Your task to perform on an android device: open wifi settings Image 0: 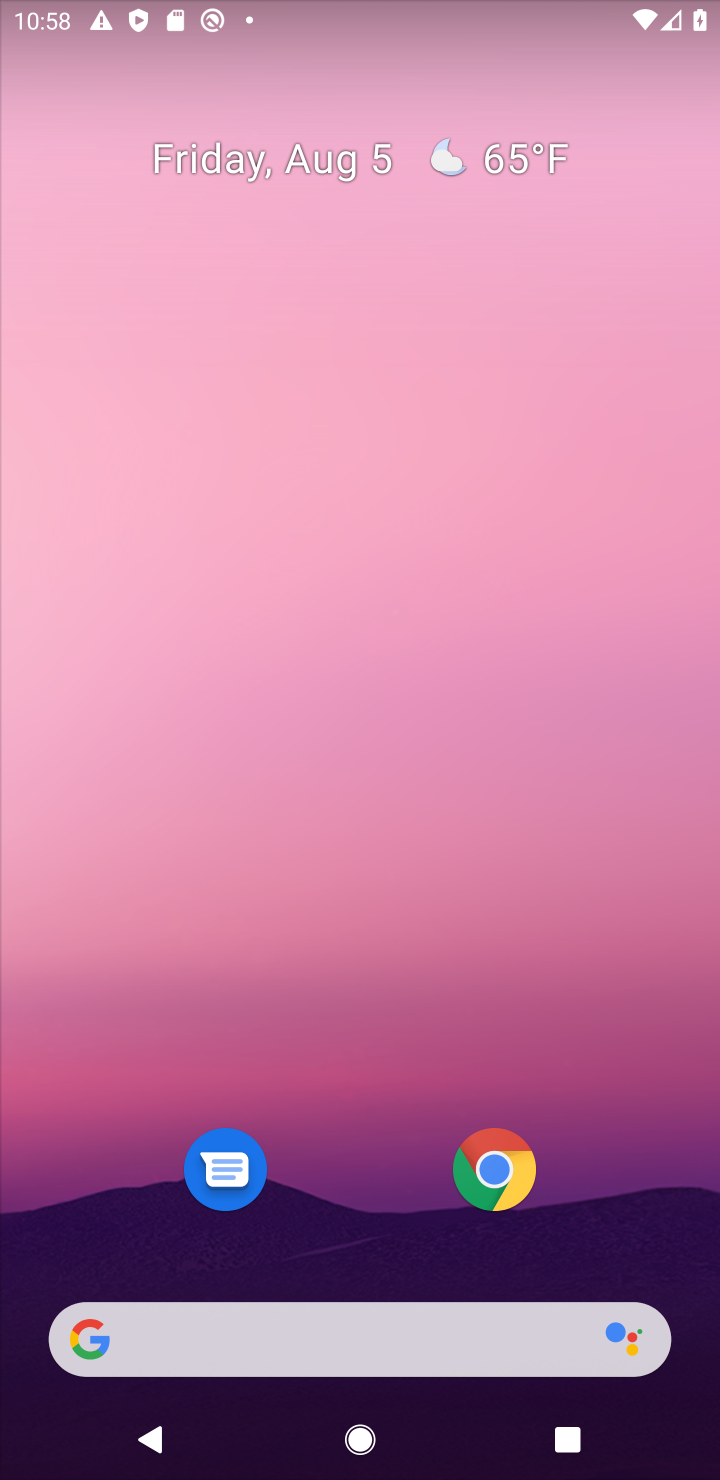
Step 0: drag from (383, 1092) to (211, 2)
Your task to perform on an android device: open wifi settings Image 1: 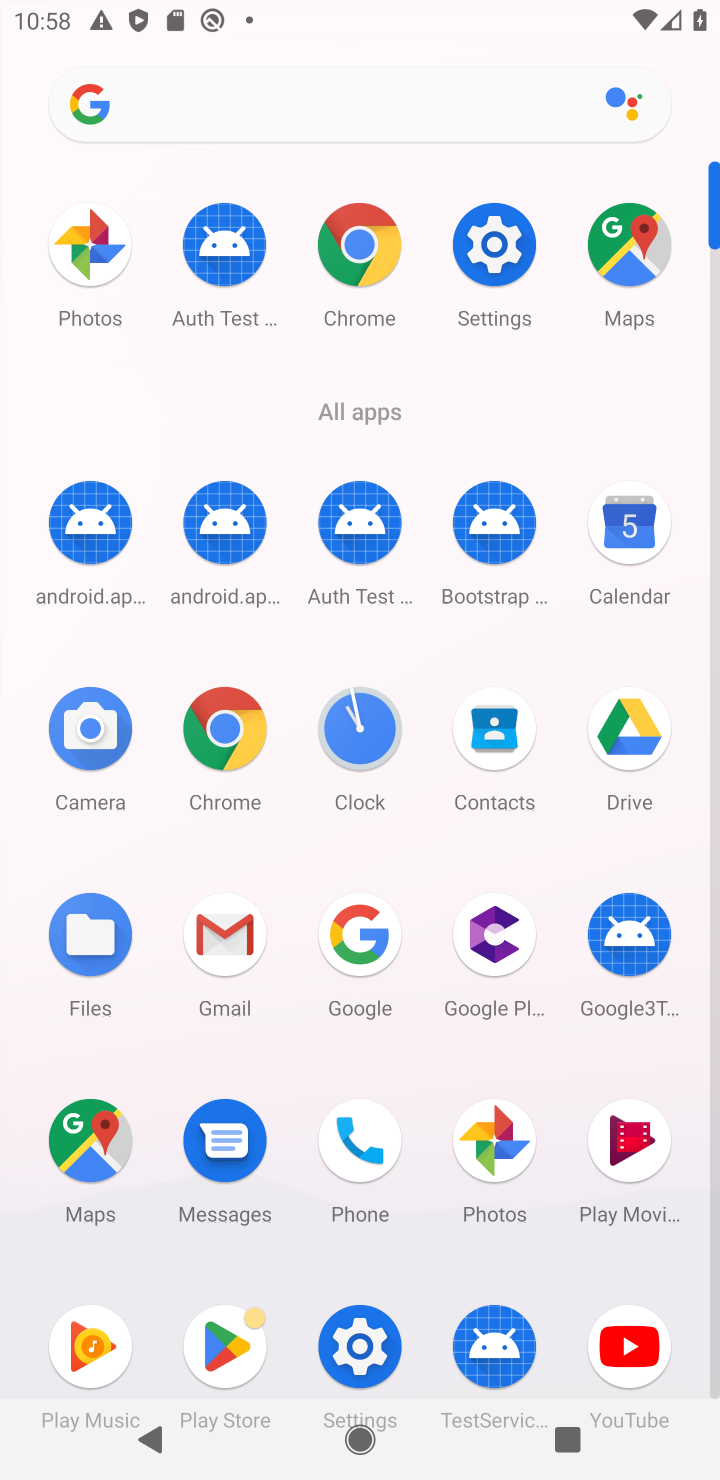
Step 1: click (489, 271)
Your task to perform on an android device: open wifi settings Image 2: 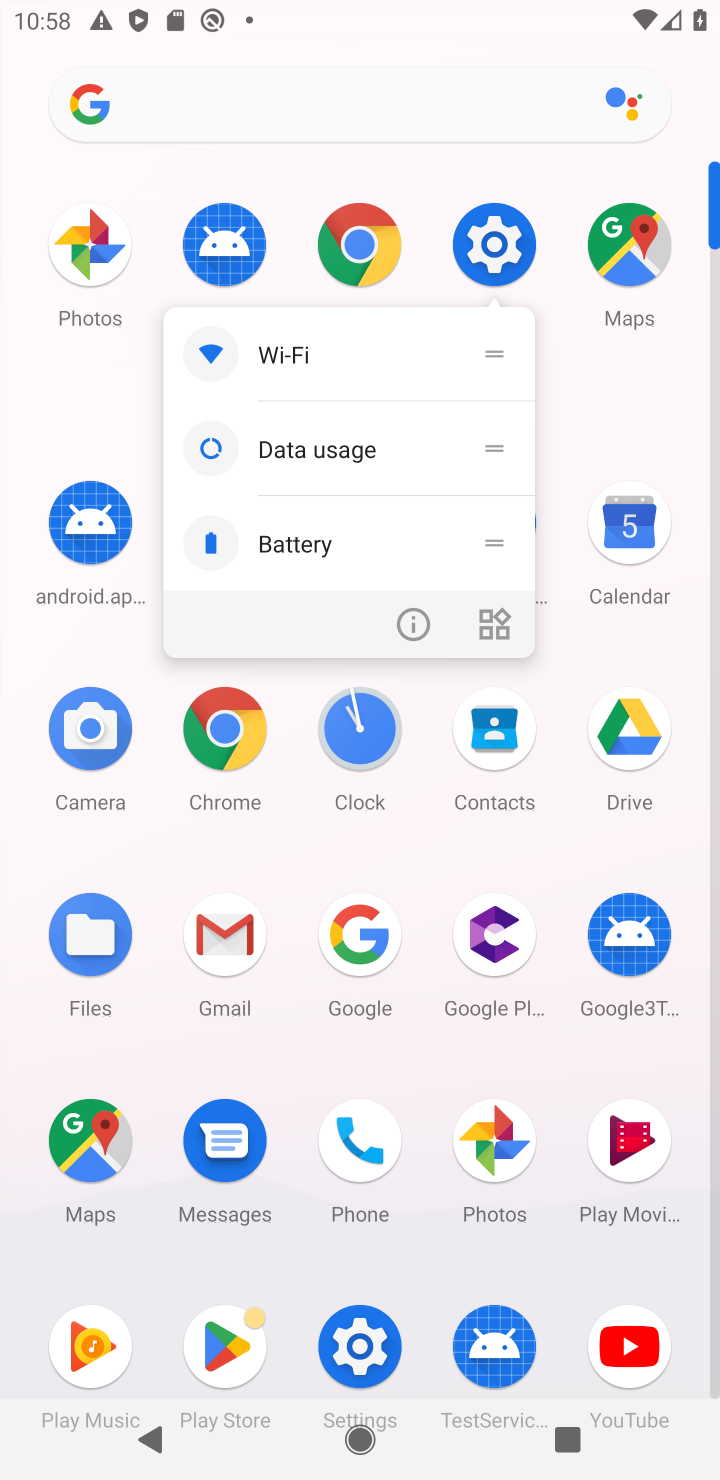
Step 2: click (515, 207)
Your task to perform on an android device: open wifi settings Image 3: 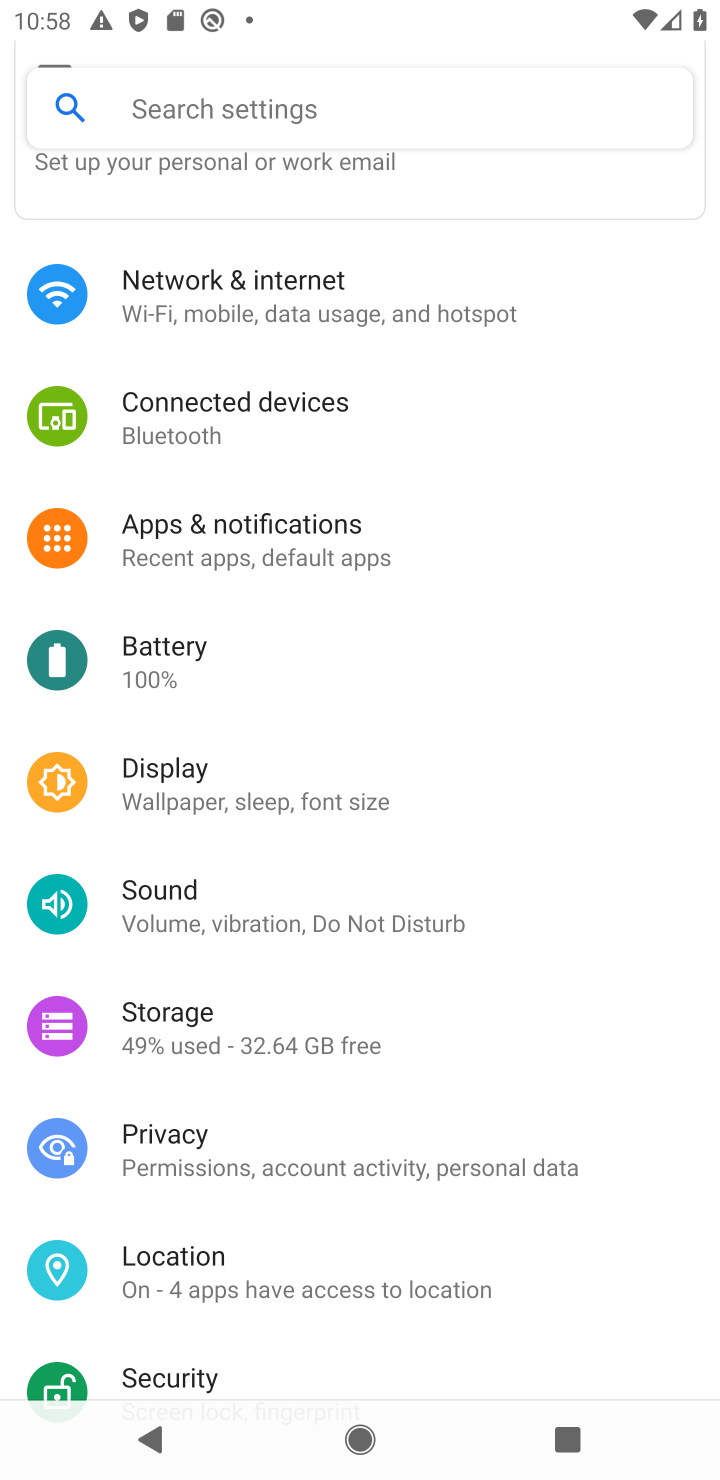
Step 3: click (252, 318)
Your task to perform on an android device: open wifi settings Image 4: 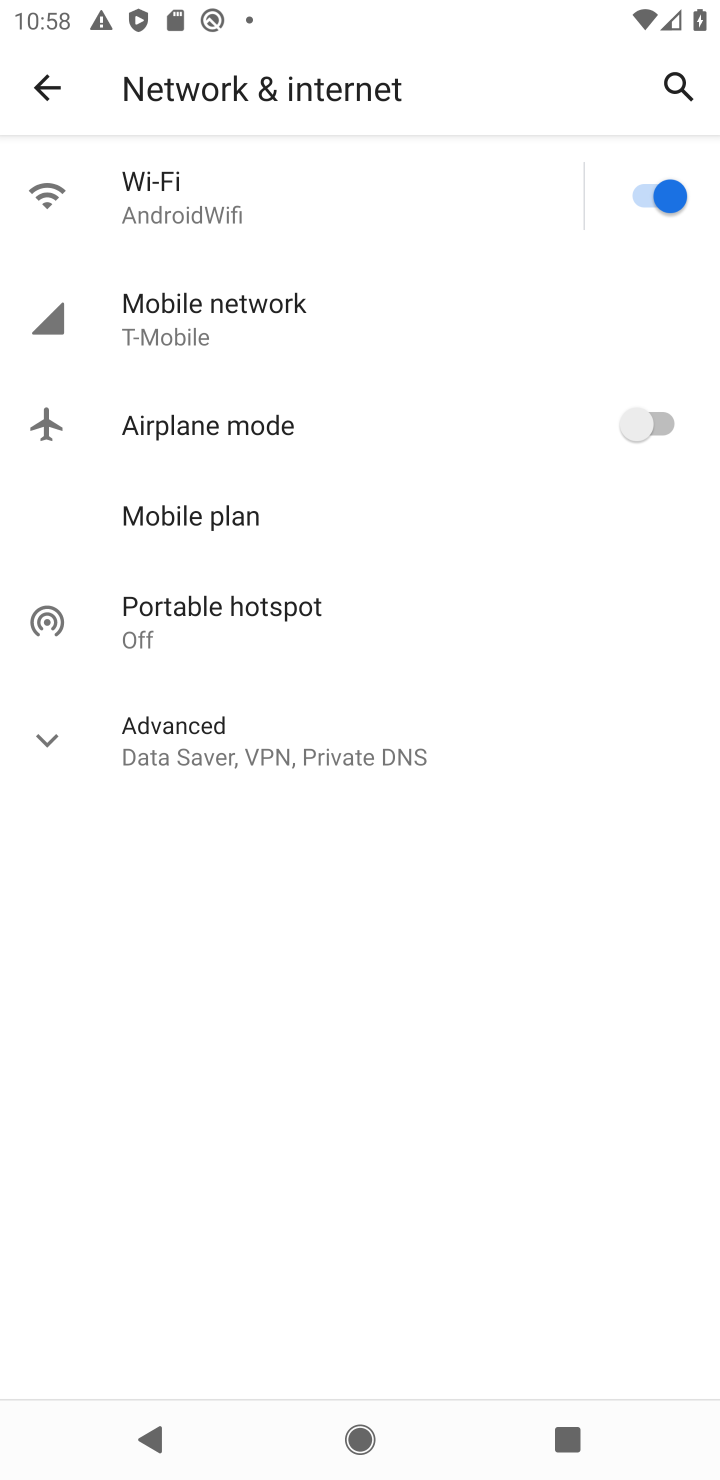
Step 4: click (102, 212)
Your task to perform on an android device: open wifi settings Image 5: 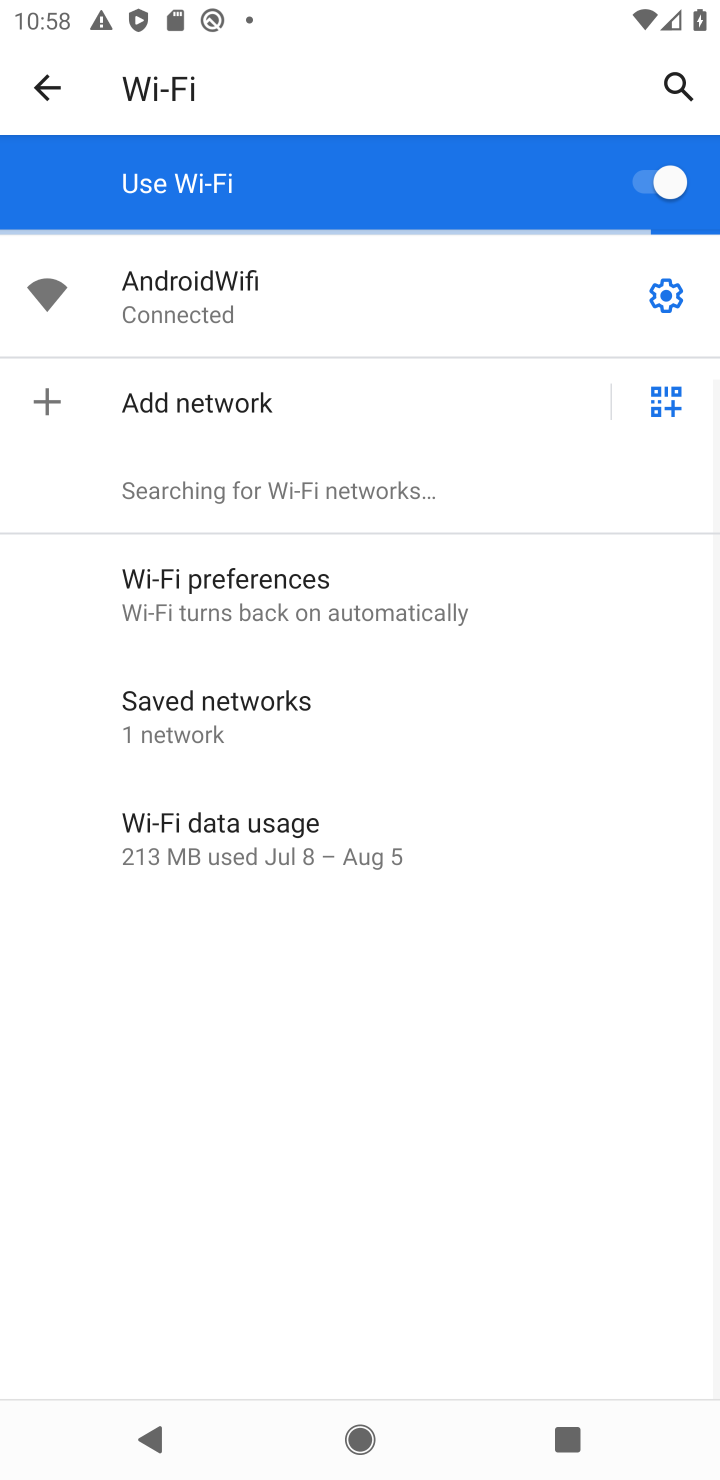
Step 5: task complete